Your task to perform on an android device: What's the weather like inToronto? Image 0: 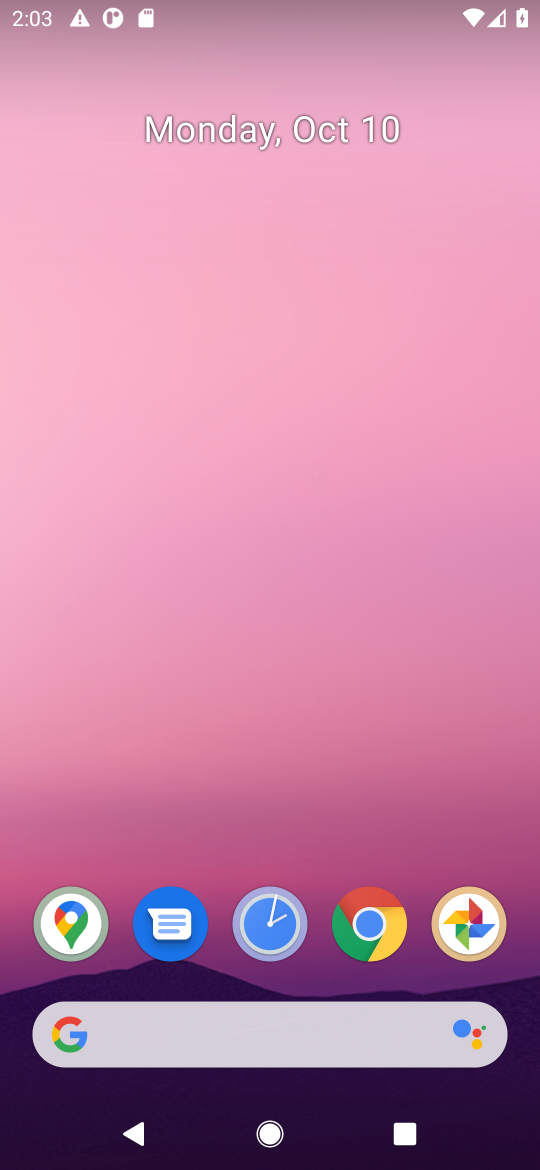
Step 0: drag from (257, 875) to (421, 54)
Your task to perform on an android device: What's the weather like inToronto? Image 1: 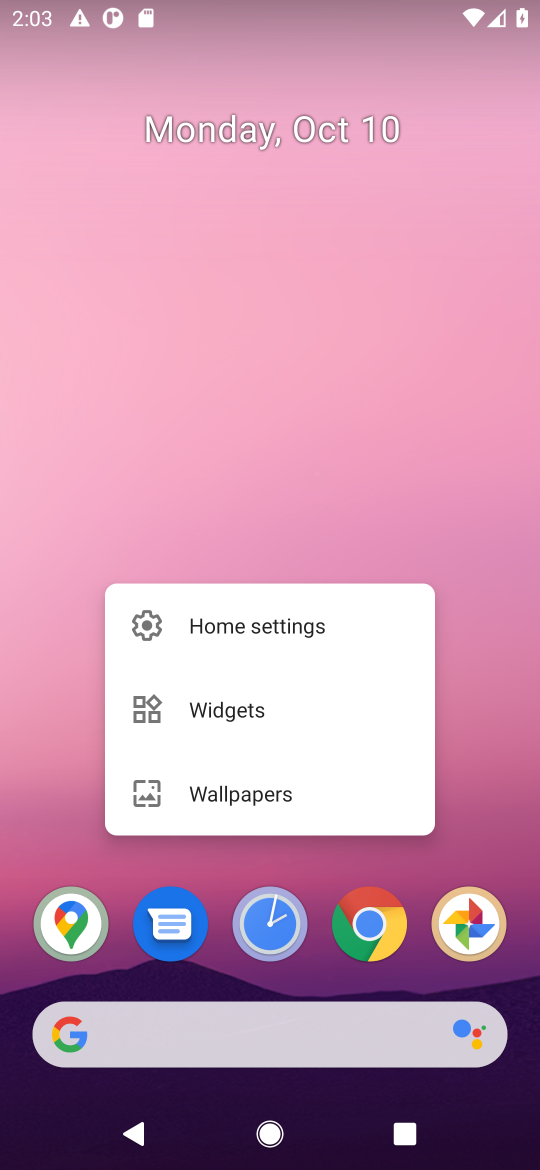
Step 1: click (490, 683)
Your task to perform on an android device: What's the weather like inToronto? Image 2: 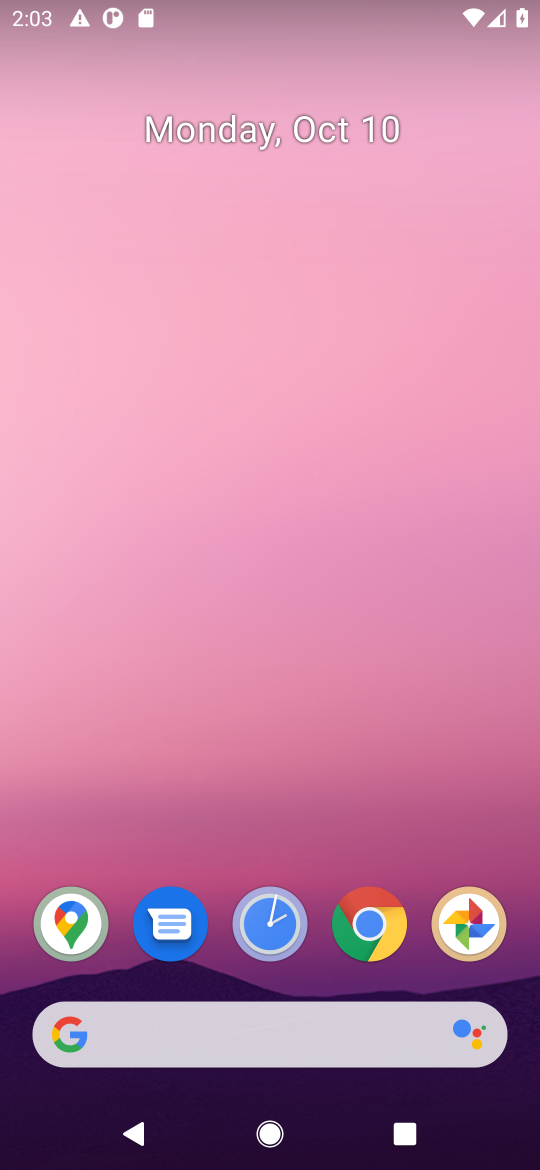
Step 2: drag from (412, 897) to (356, 48)
Your task to perform on an android device: What's the weather like inToronto? Image 3: 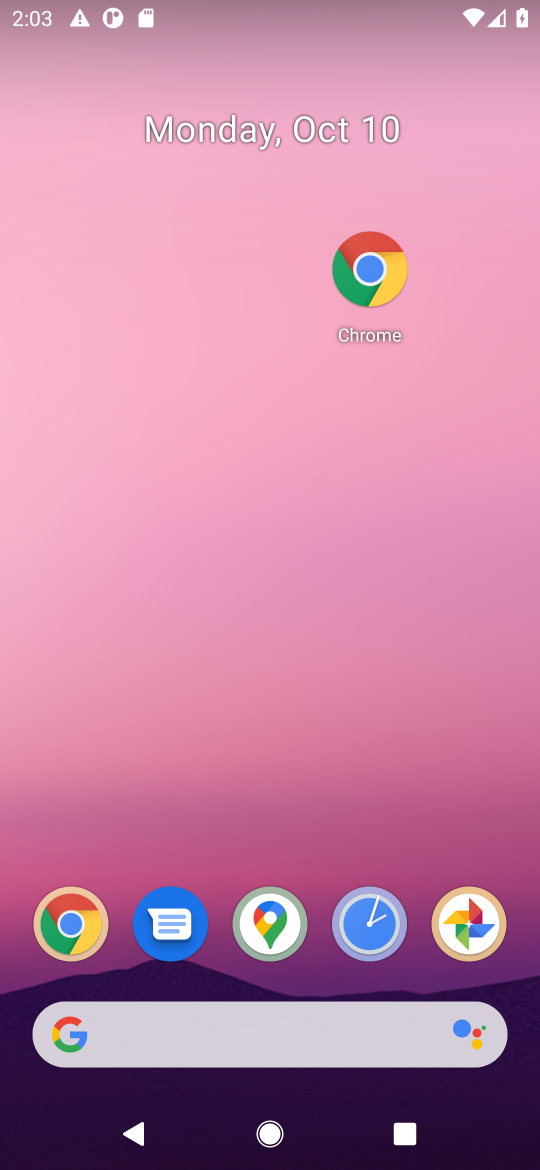
Step 3: click (360, 252)
Your task to perform on an android device: What's the weather like inToronto? Image 4: 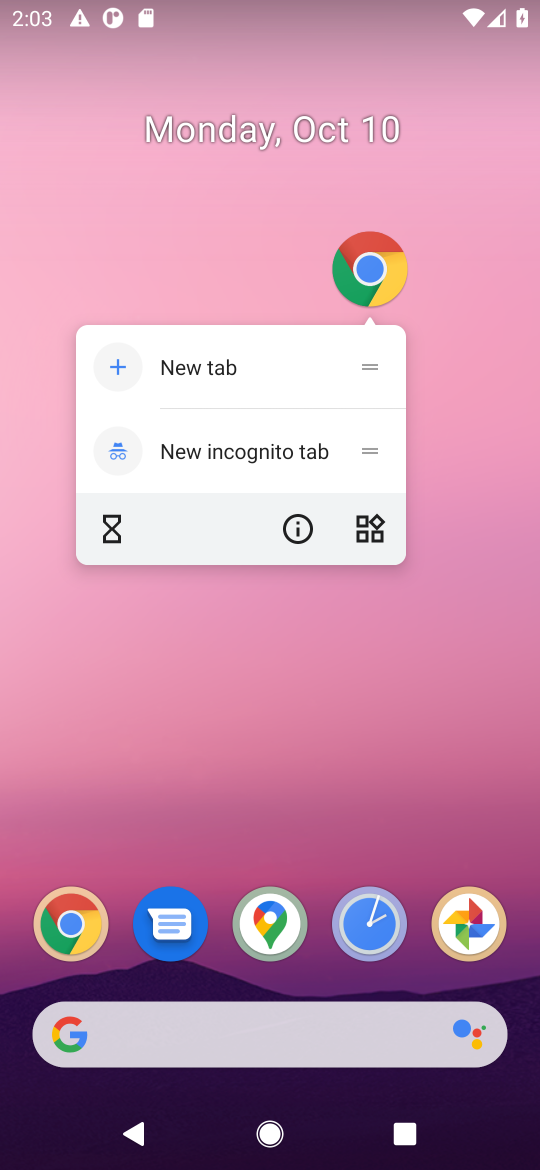
Step 4: click (413, 868)
Your task to perform on an android device: What's the weather like inToronto? Image 5: 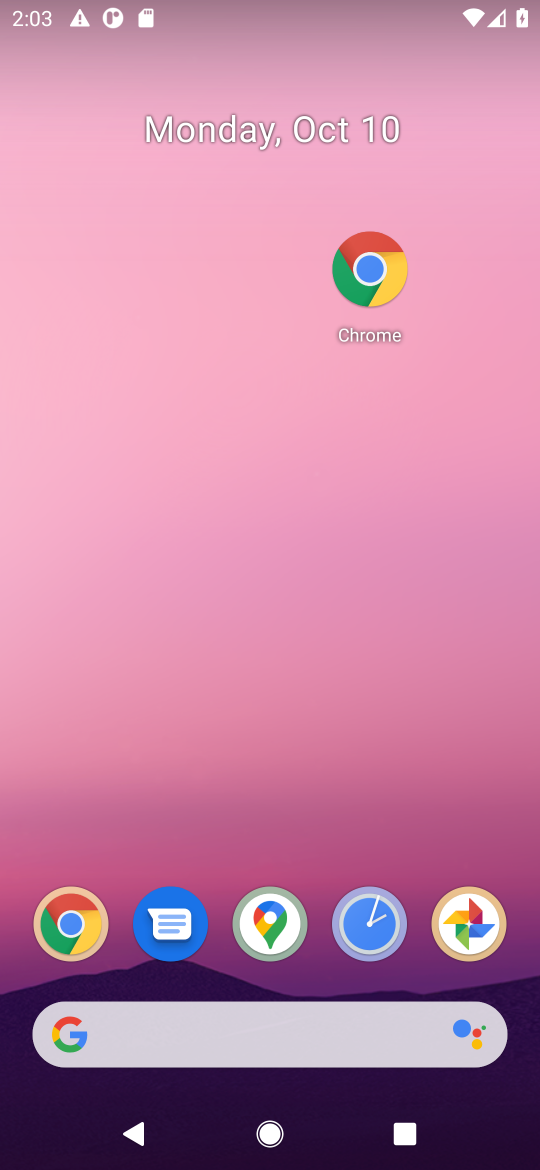
Step 5: drag from (413, 868) to (529, 14)
Your task to perform on an android device: What's the weather like inToronto? Image 6: 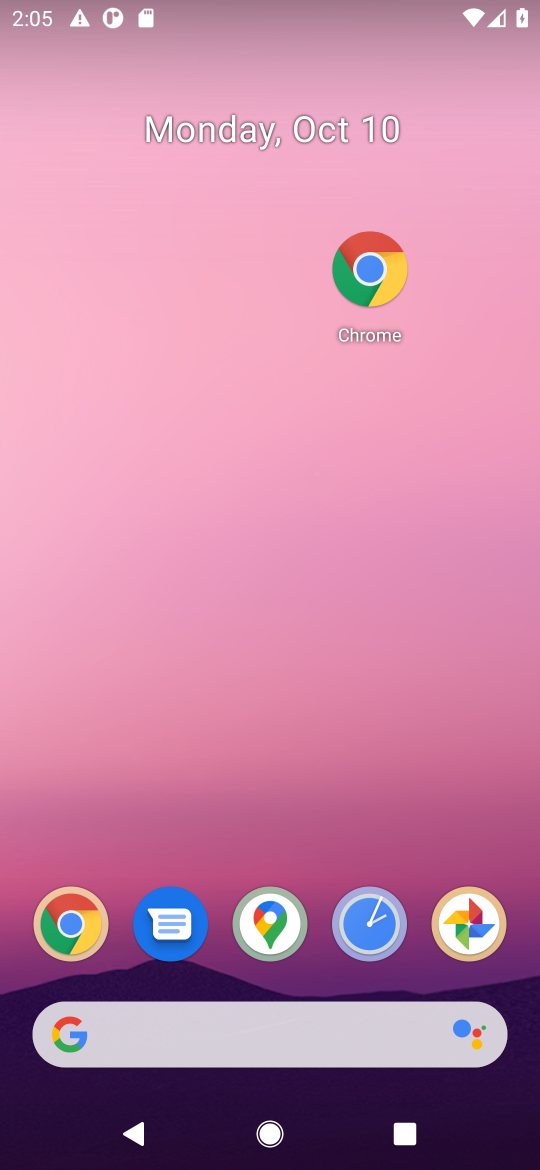
Step 6: click (370, 261)
Your task to perform on an android device: What's the weather like inToronto? Image 7: 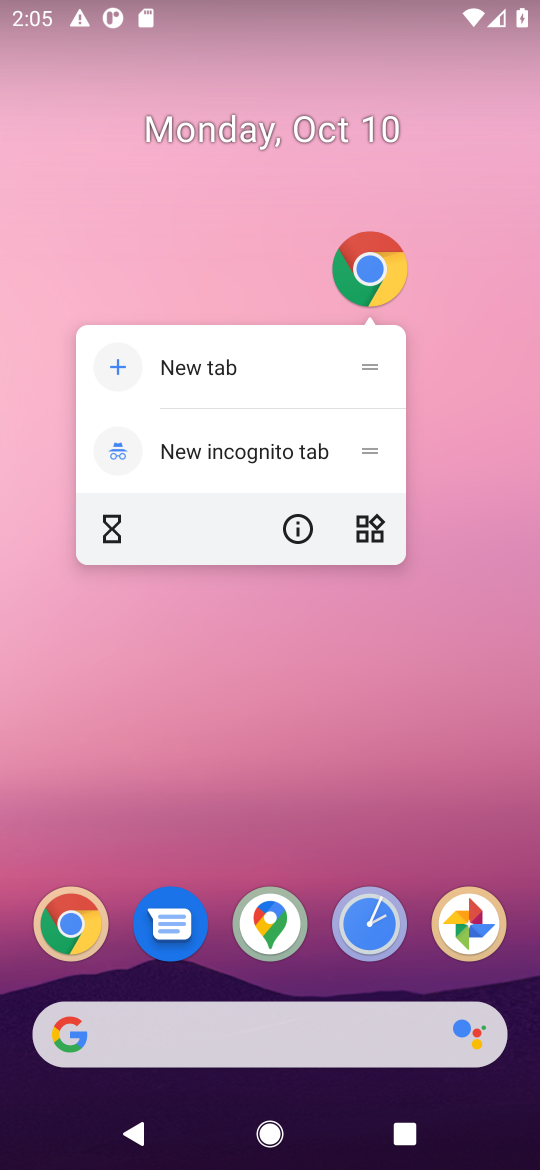
Step 7: click (375, 264)
Your task to perform on an android device: What's the weather like inToronto? Image 8: 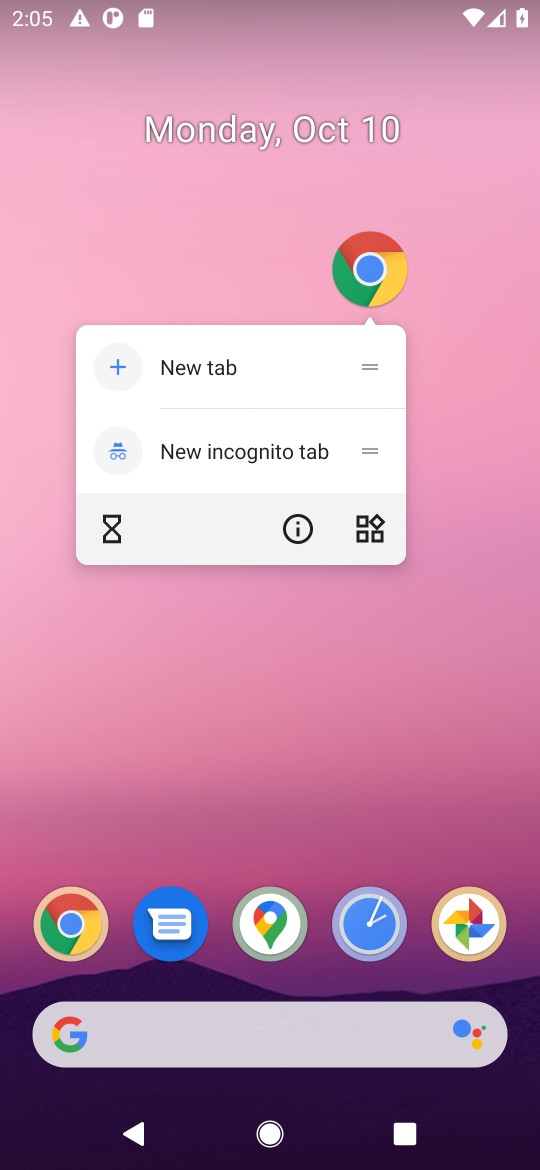
Step 8: click (388, 258)
Your task to perform on an android device: What's the weather like inToronto? Image 9: 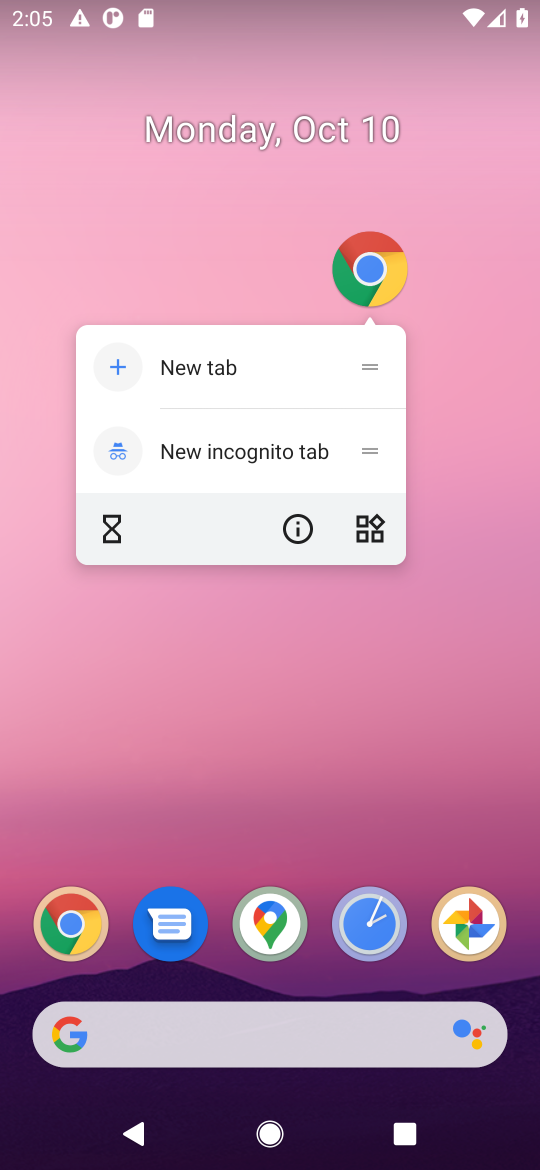
Step 9: click (438, 673)
Your task to perform on an android device: What's the weather like inToronto? Image 10: 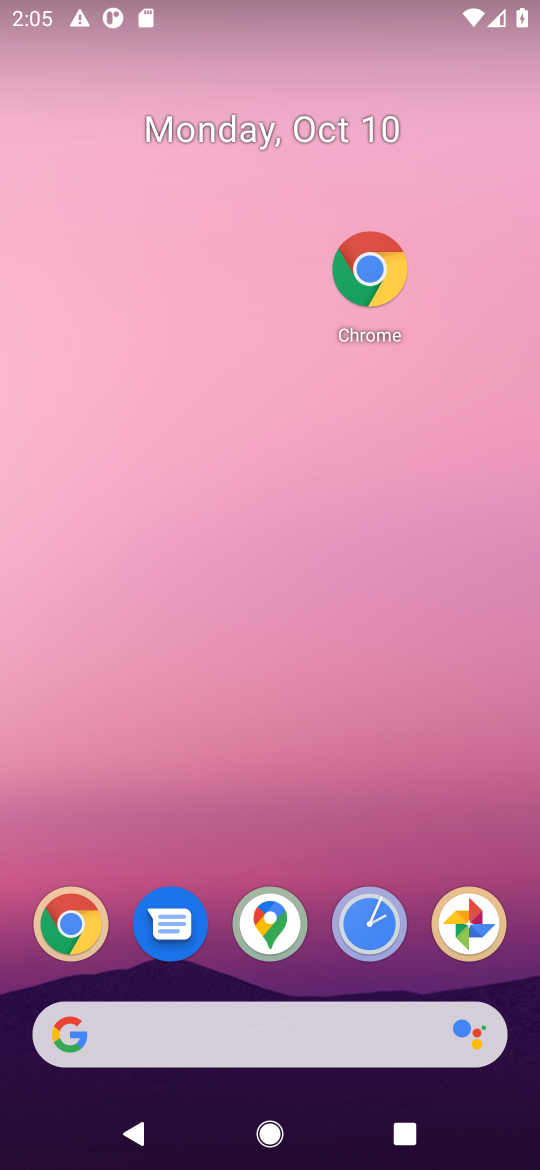
Step 10: drag from (415, 862) to (491, 5)
Your task to perform on an android device: What's the weather like inToronto? Image 11: 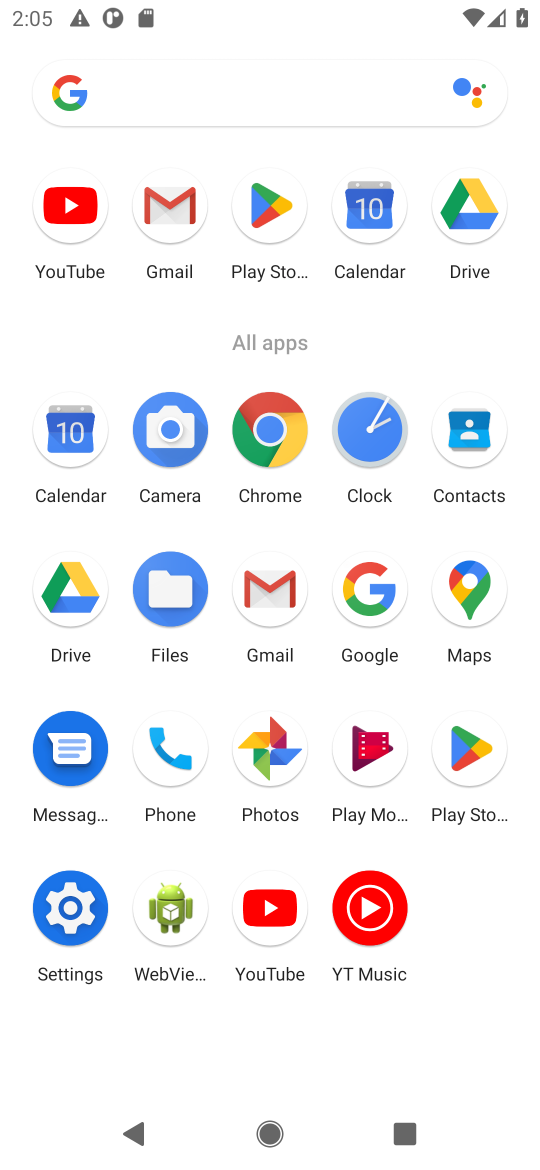
Step 11: click (271, 423)
Your task to perform on an android device: What's the weather like inToronto? Image 12: 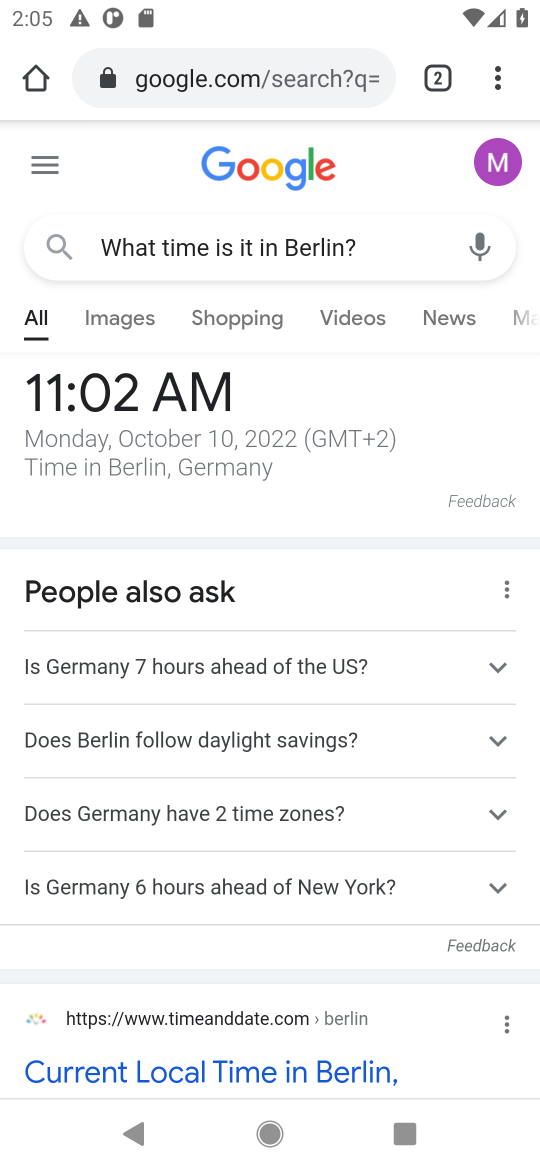
Step 12: click (241, 82)
Your task to perform on an android device: What's the weather like inToronto? Image 13: 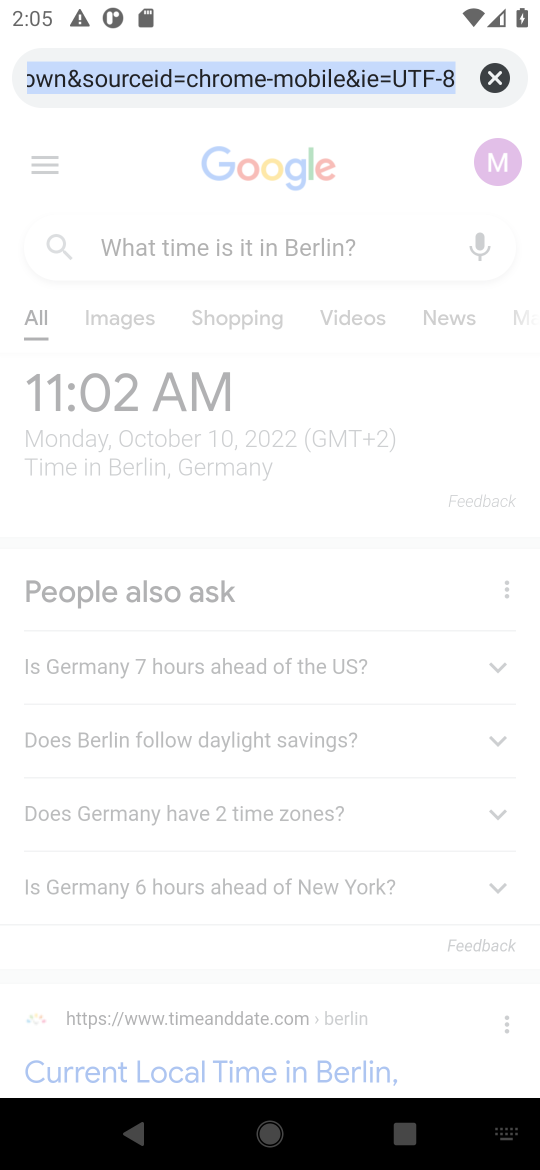
Step 13: click (497, 62)
Your task to perform on an android device: What's the weather like inToronto? Image 14: 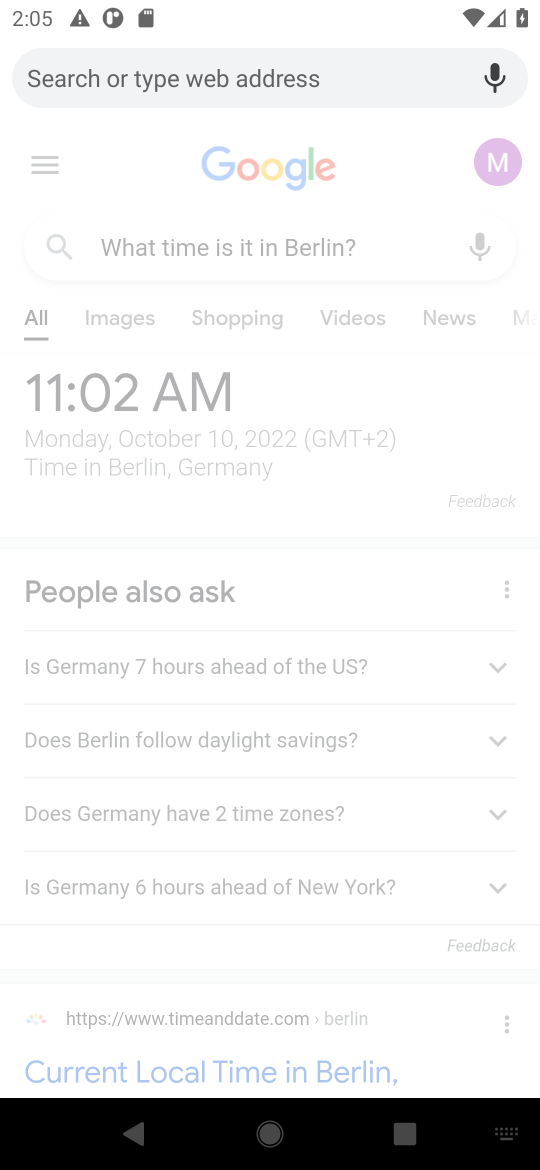
Step 14: type "What's the weather like inToronto?"
Your task to perform on an android device: What's the weather like inToronto? Image 15: 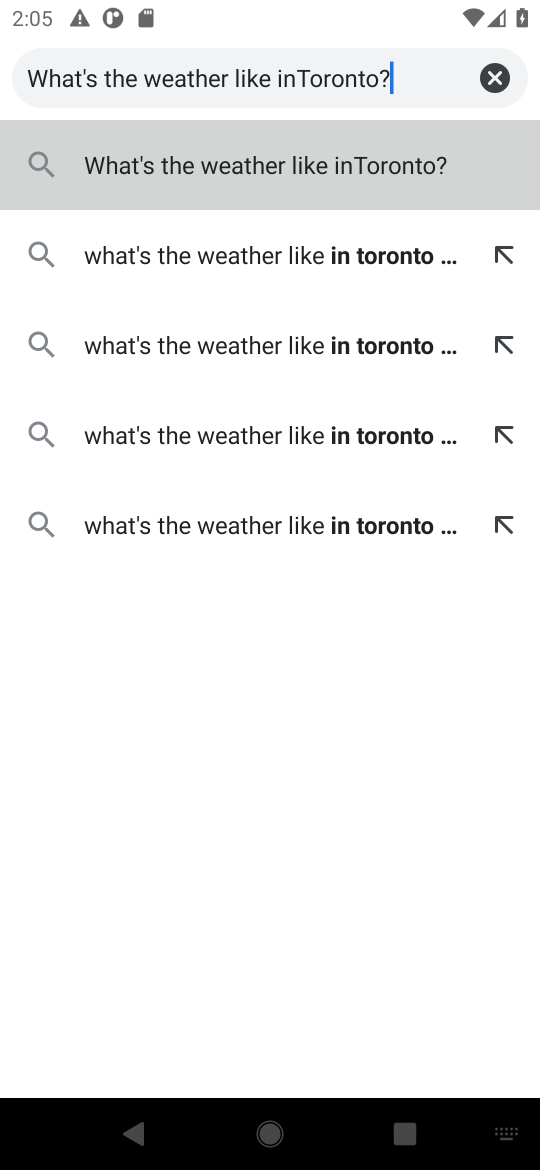
Step 15: click (352, 177)
Your task to perform on an android device: What's the weather like inToronto? Image 16: 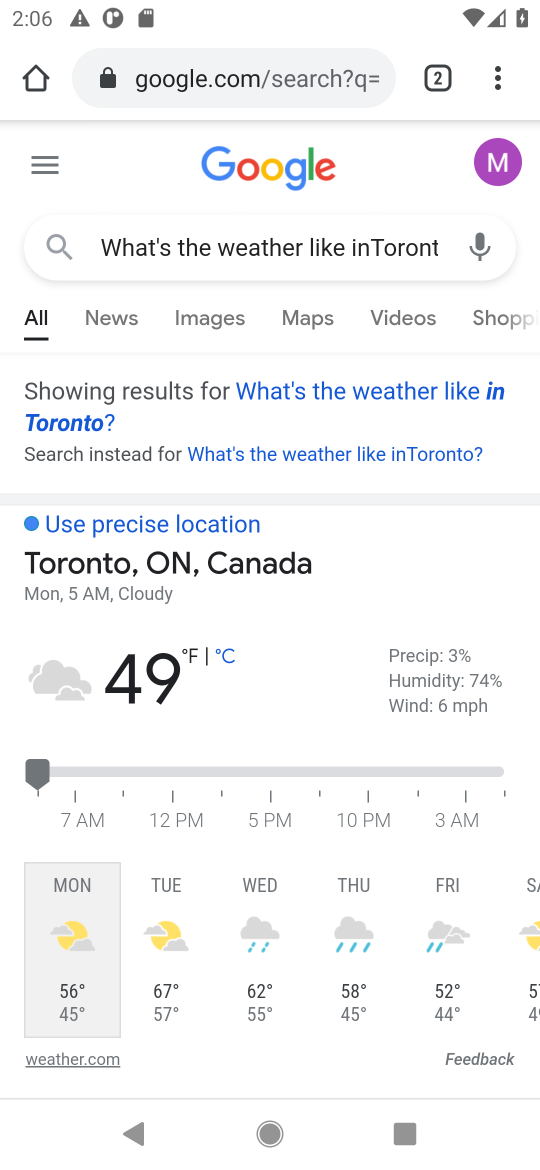
Step 16: task complete